Your task to perform on an android device: see creations saved in the google photos Image 0: 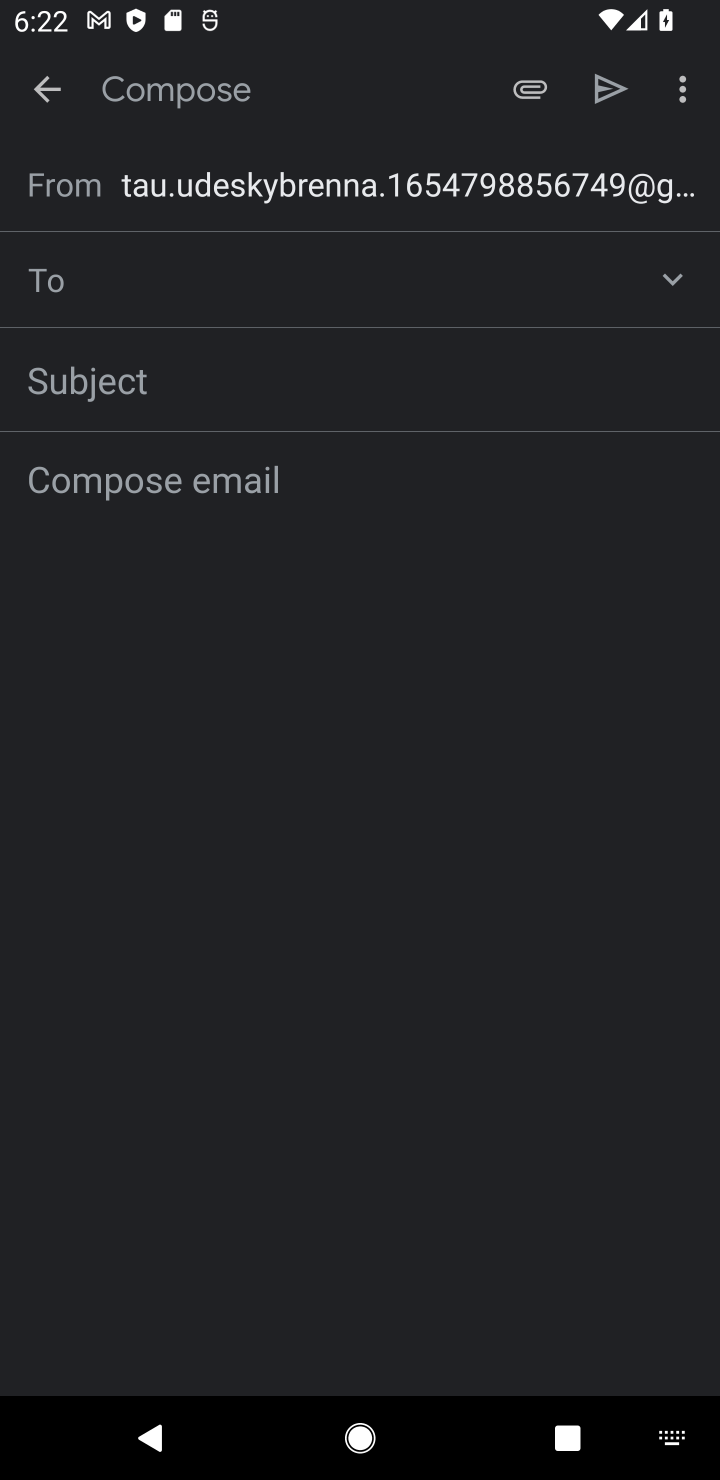
Step 0: task complete